Your task to perform on an android device: Show me productivity apps on the Play Store Image 0: 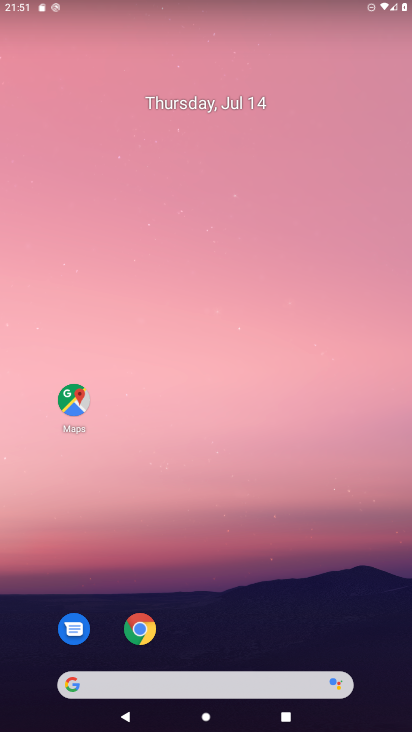
Step 0: drag from (187, 613) to (199, 168)
Your task to perform on an android device: Show me productivity apps on the Play Store Image 1: 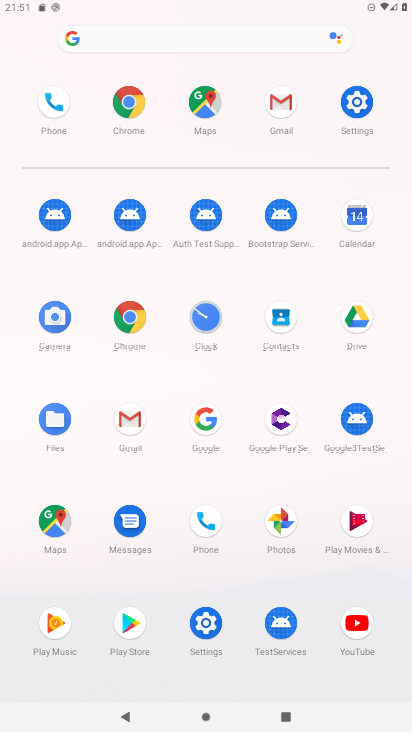
Step 1: click (113, 618)
Your task to perform on an android device: Show me productivity apps on the Play Store Image 2: 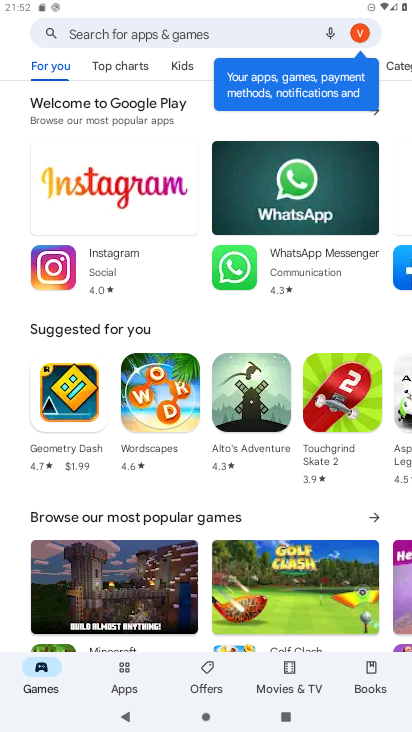
Step 2: click (125, 674)
Your task to perform on an android device: Show me productivity apps on the Play Store Image 3: 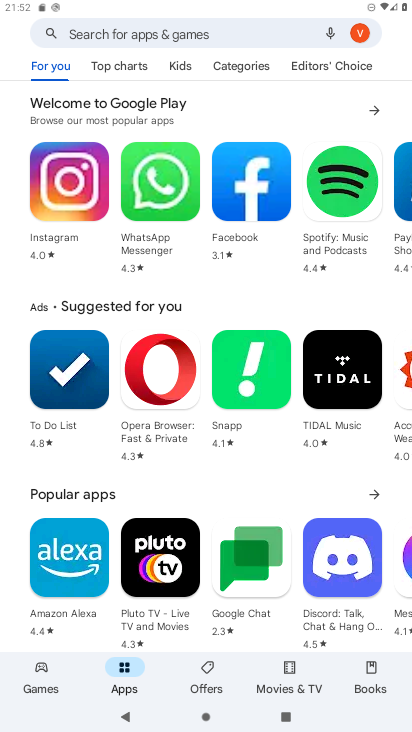
Step 3: task complete